Your task to perform on an android device: star an email in the gmail app Image 0: 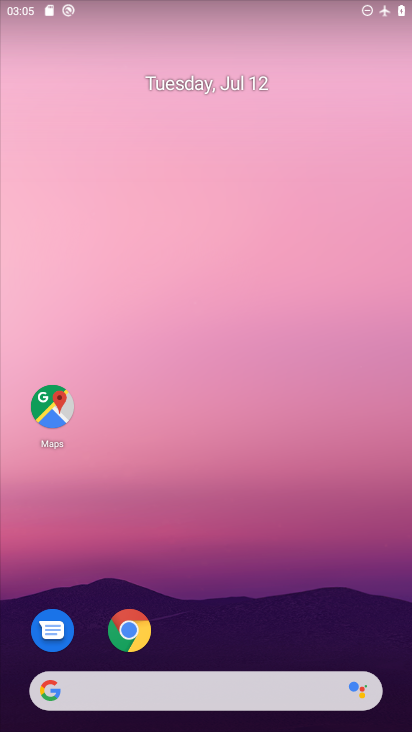
Step 0: drag from (380, 602) to (318, 51)
Your task to perform on an android device: star an email in the gmail app Image 1: 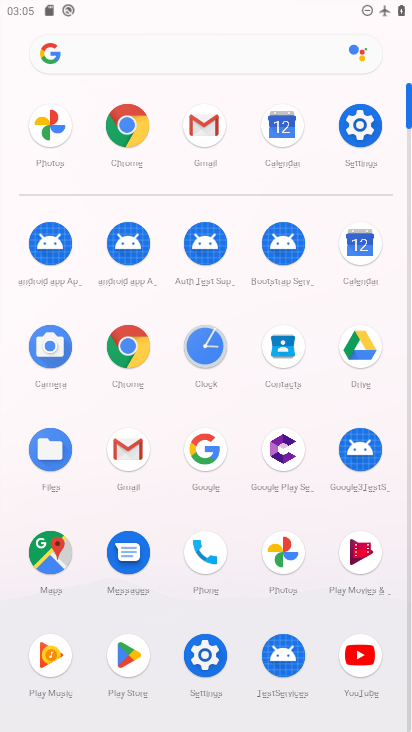
Step 1: click (132, 451)
Your task to perform on an android device: star an email in the gmail app Image 2: 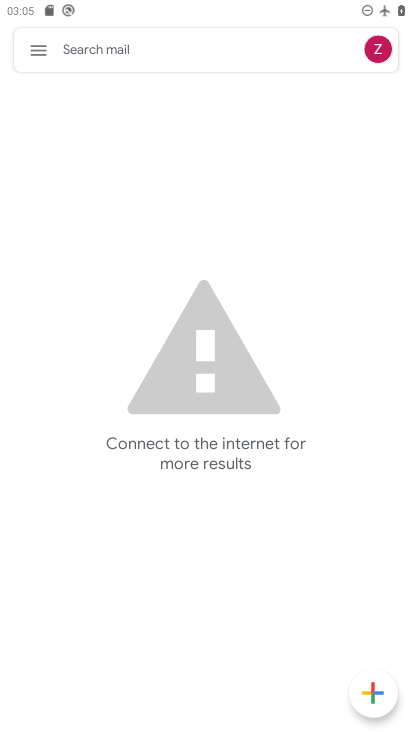
Step 2: click (37, 50)
Your task to perform on an android device: star an email in the gmail app Image 3: 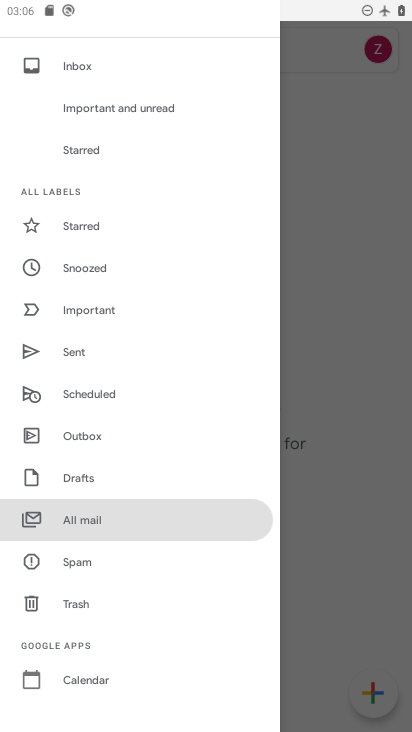
Step 3: click (132, 511)
Your task to perform on an android device: star an email in the gmail app Image 4: 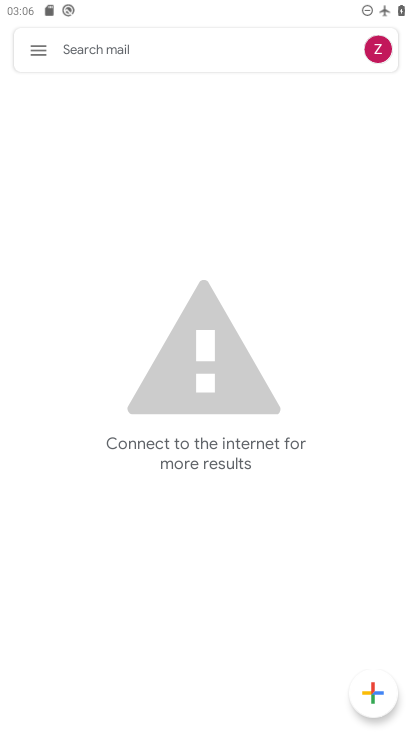
Step 4: task complete